Your task to perform on an android device: turn on improve location accuracy Image 0: 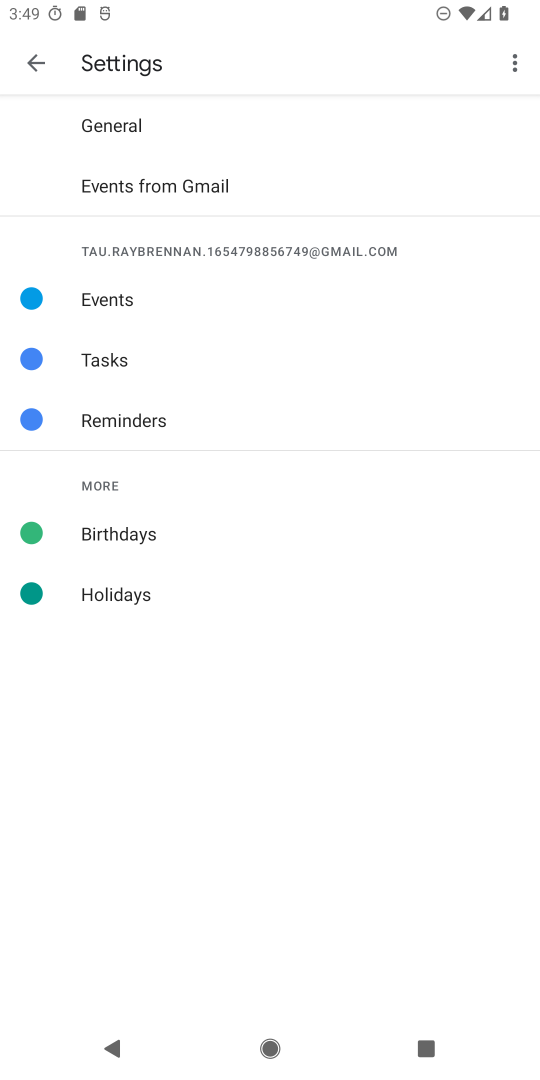
Step 0: press home button
Your task to perform on an android device: turn on improve location accuracy Image 1: 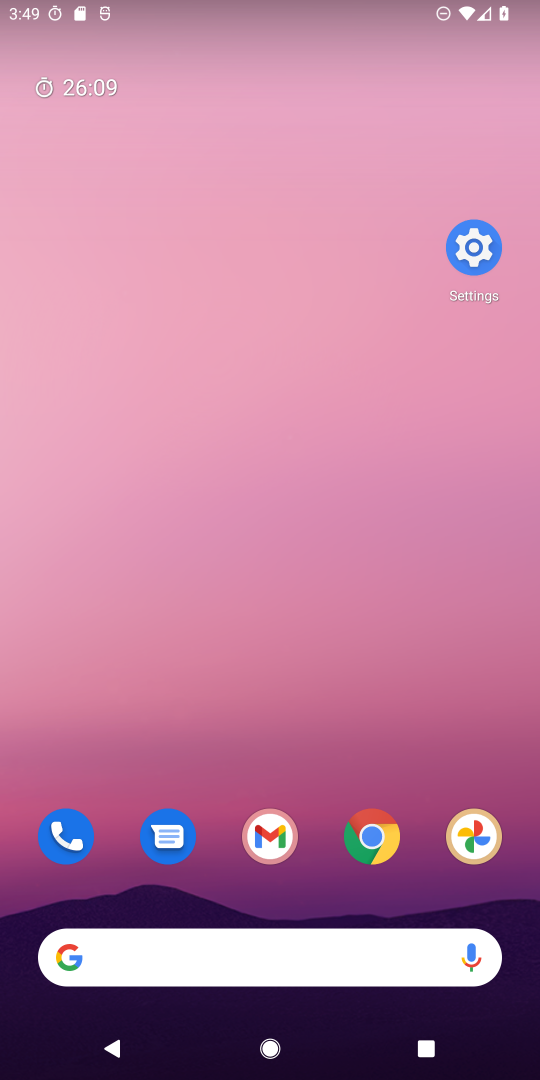
Step 1: drag from (247, 767) to (207, 1)
Your task to perform on an android device: turn on improve location accuracy Image 2: 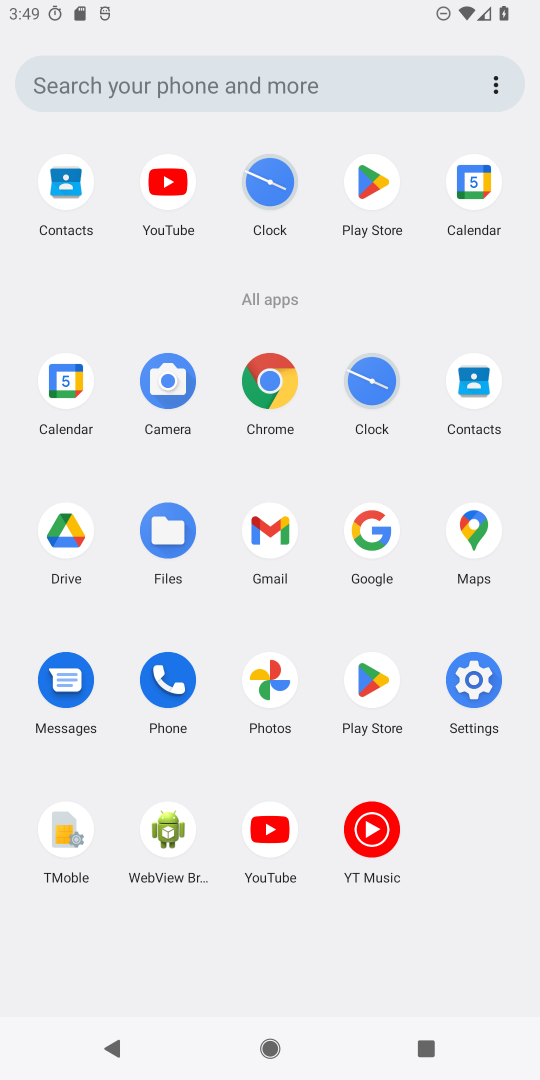
Step 2: click (477, 694)
Your task to perform on an android device: turn on improve location accuracy Image 3: 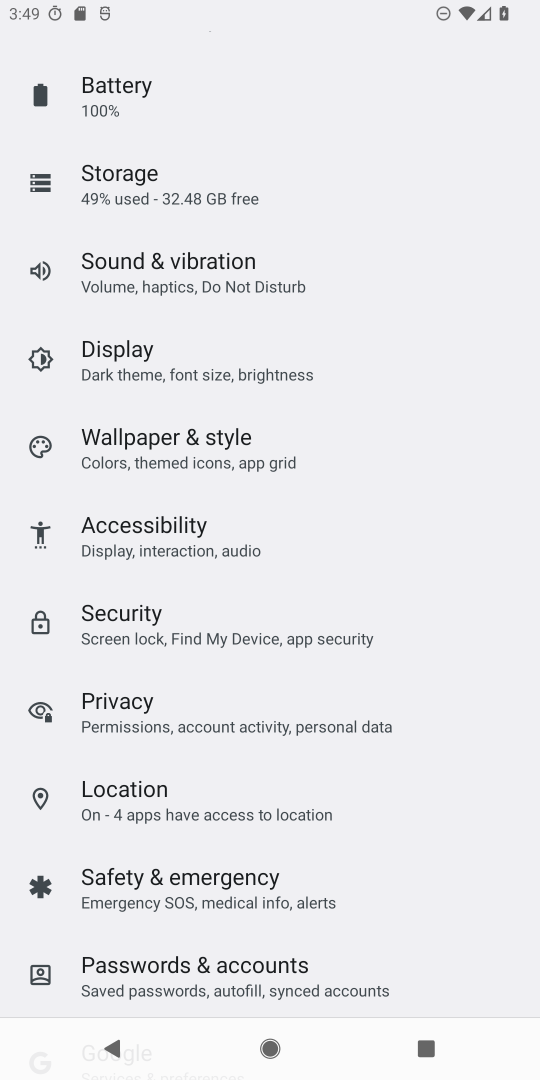
Step 3: click (155, 806)
Your task to perform on an android device: turn on improve location accuracy Image 4: 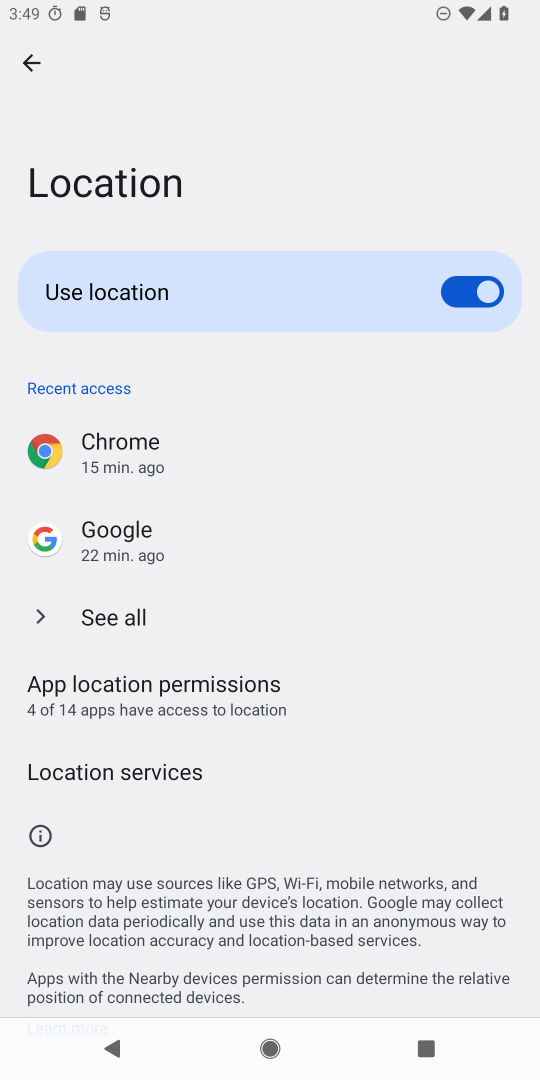
Step 4: click (117, 774)
Your task to perform on an android device: turn on improve location accuracy Image 5: 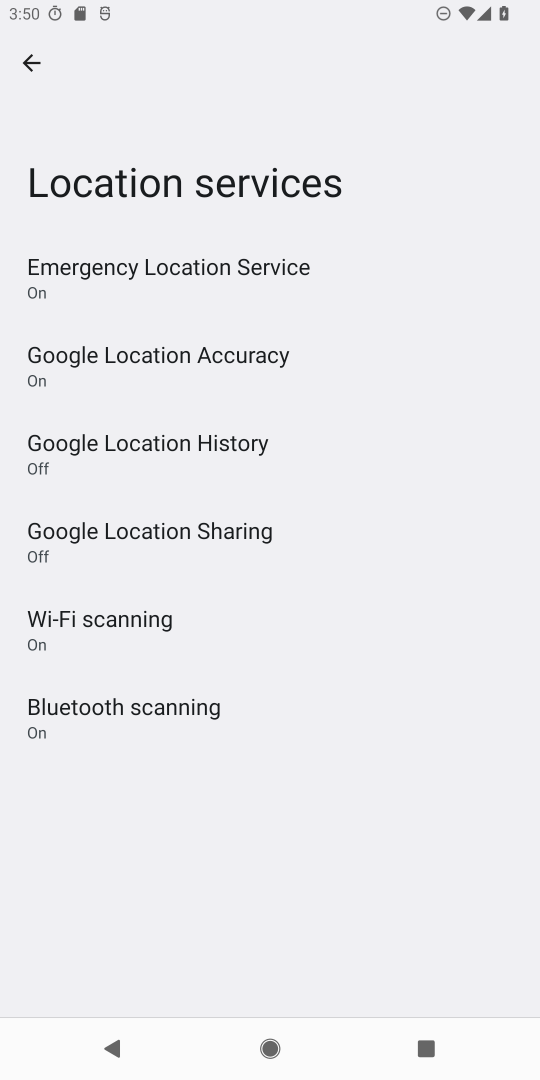
Step 5: click (210, 360)
Your task to perform on an android device: turn on improve location accuracy Image 6: 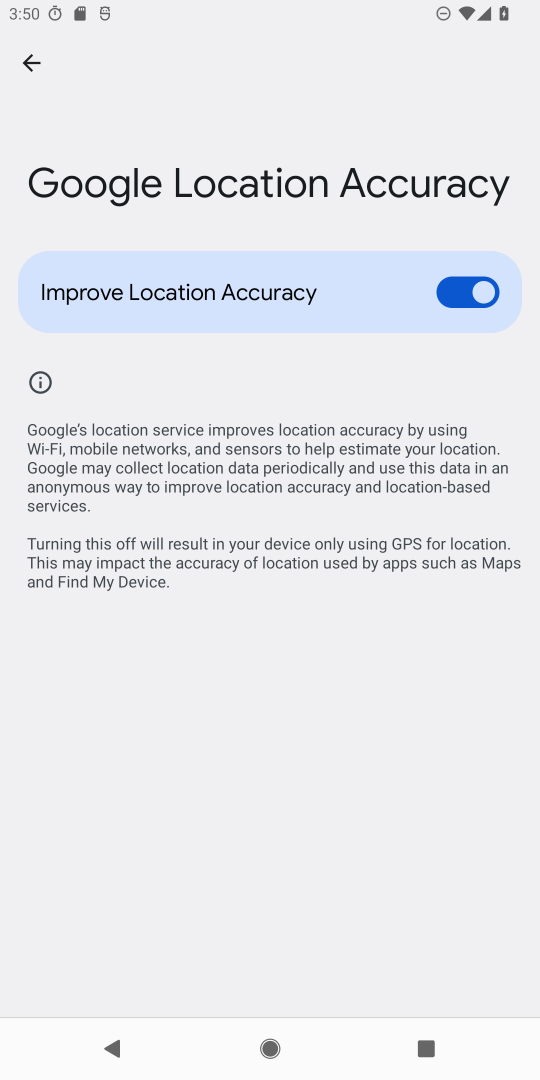
Step 6: task complete